Your task to perform on an android device: Open Youtube and go to "Your channel" Image 0: 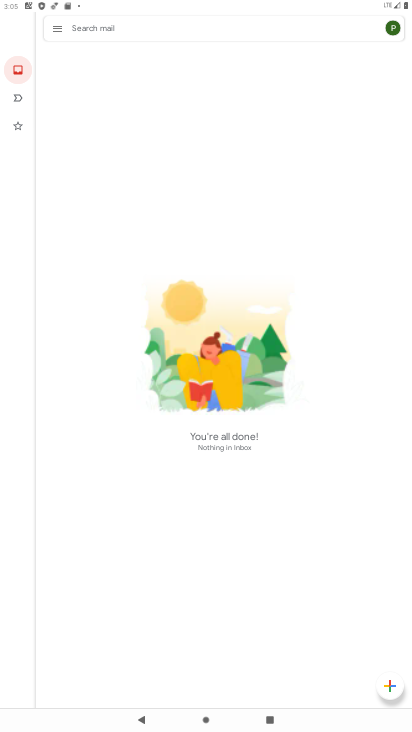
Step 0: press home button
Your task to perform on an android device: Open Youtube and go to "Your channel" Image 1: 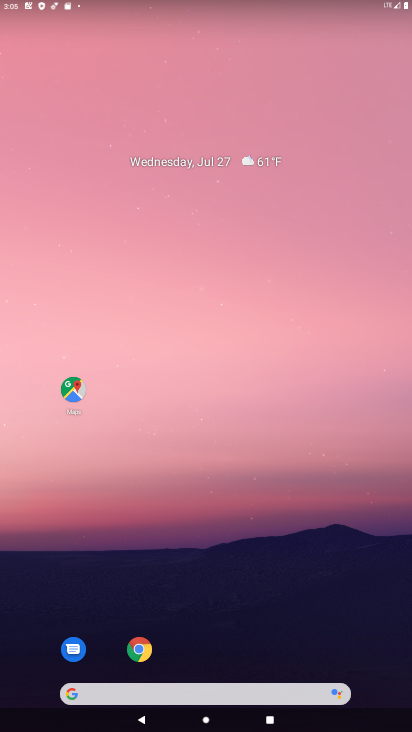
Step 1: drag from (180, 629) to (139, 78)
Your task to perform on an android device: Open Youtube and go to "Your channel" Image 2: 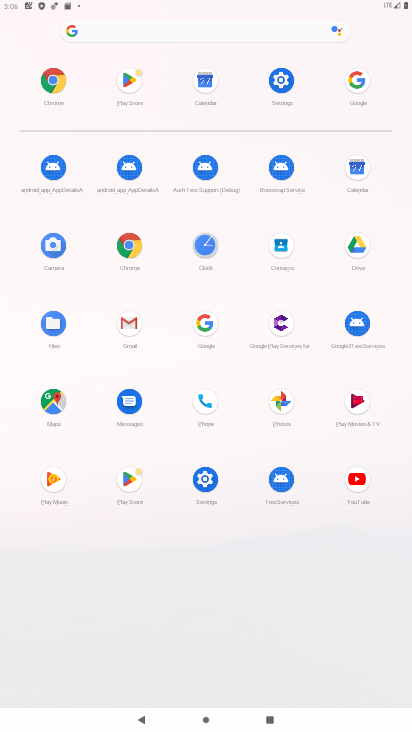
Step 2: click (357, 486)
Your task to perform on an android device: Open Youtube and go to "Your channel" Image 3: 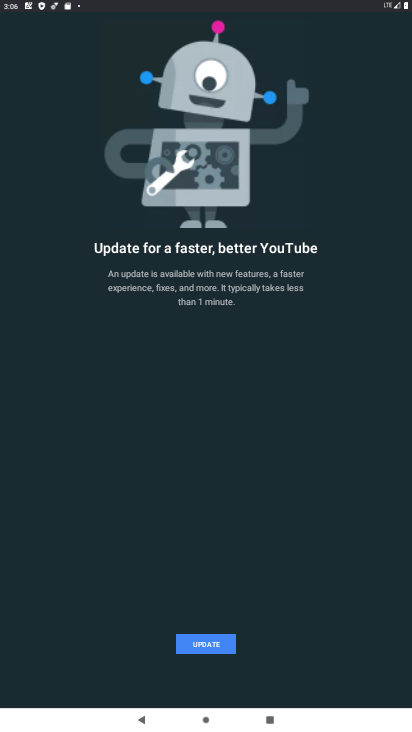
Step 3: click (201, 637)
Your task to perform on an android device: Open Youtube and go to "Your channel" Image 4: 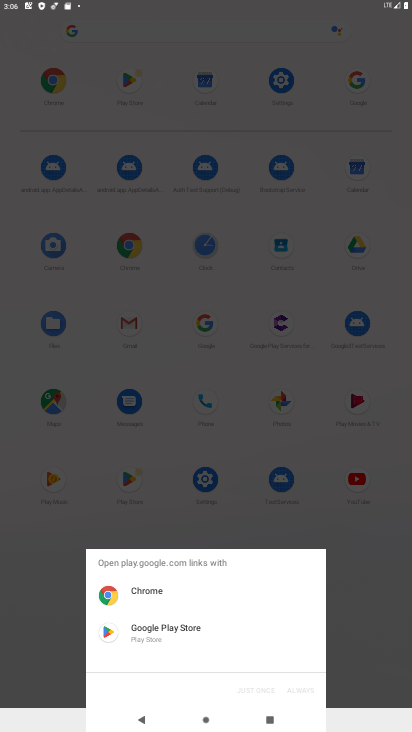
Step 4: click (188, 621)
Your task to perform on an android device: Open Youtube and go to "Your channel" Image 5: 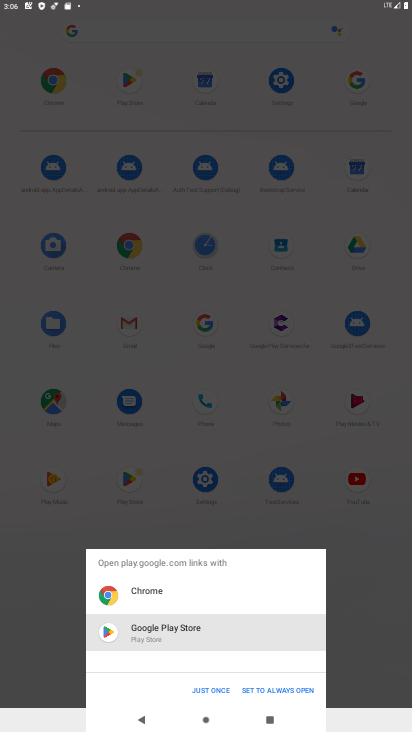
Step 5: click (273, 688)
Your task to perform on an android device: Open Youtube and go to "Your channel" Image 6: 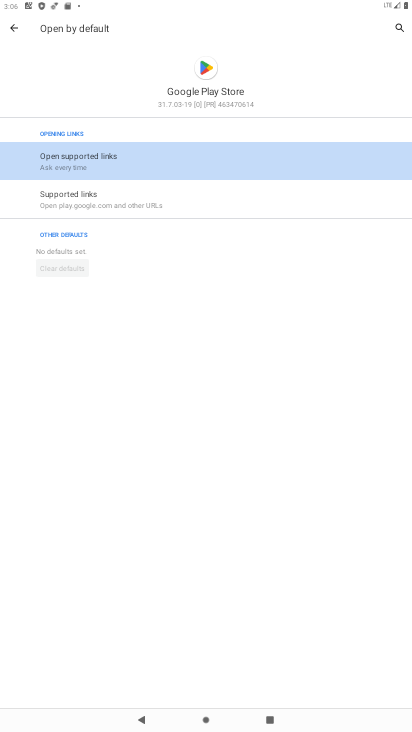
Step 6: click (99, 162)
Your task to perform on an android device: Open Youtube and go to "Your channel" Image 7: 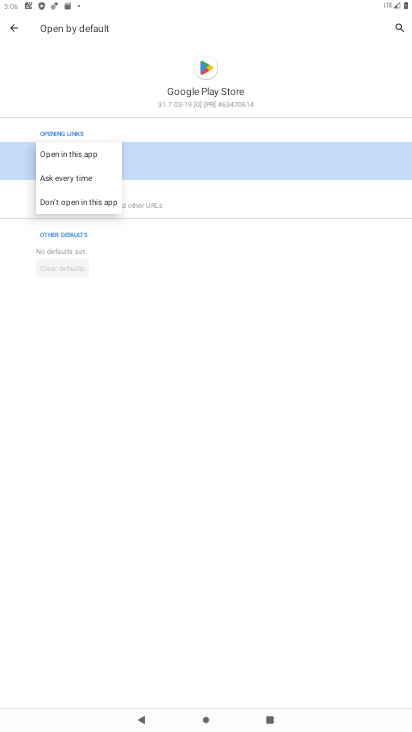
Step 7: click (81, 153)
Your task to perform on an android device: Open Youtube and go to "Your channel" Image 8: 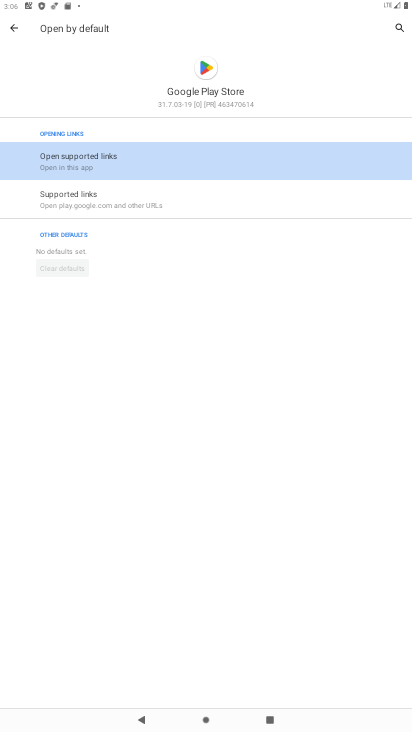
Step 8: click (11, 25)
Your task to perform on an android device: Open Youtube and go to "Your channel" Image 9: 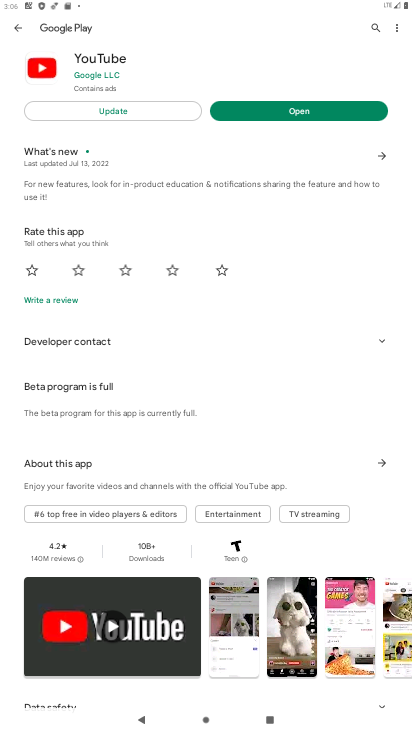
Step 9: click (105, 104)
Your task to perform on an android device: Open Youtube and go to "Your channel" Image 10: 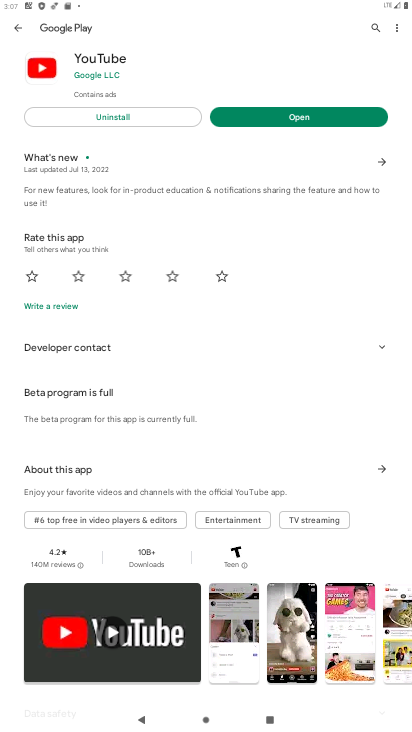
Step 10: click (282, 114)
Your task to perform on an android device: Open Youtube and go to "Your channel" Image 11: 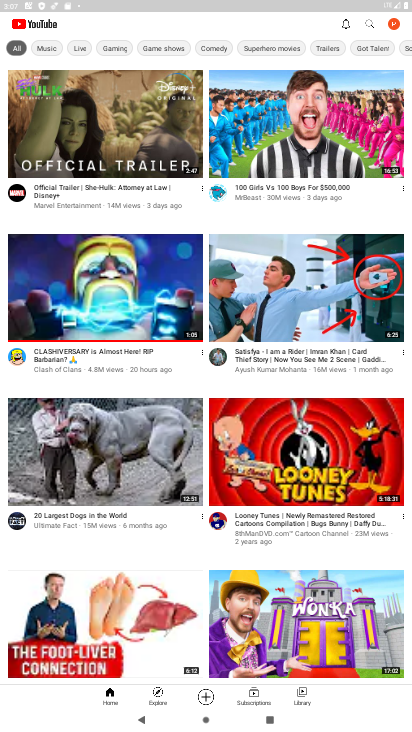
Step 11: click (391, 24)
Your task to perform on an android device: Open Youtube and go to "Your channel" Image 12: 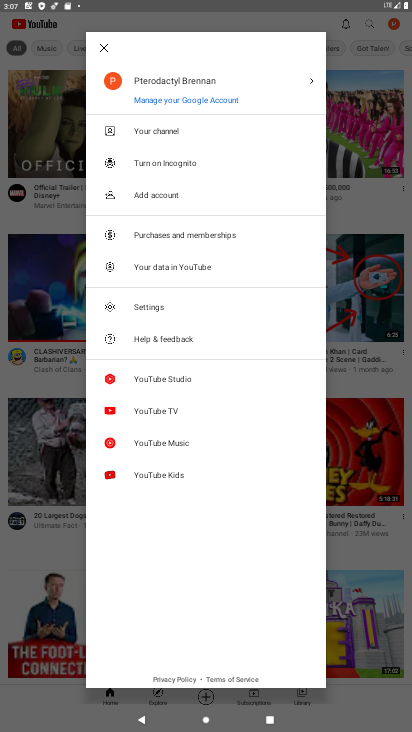
Step 12: click (157, 135)
Your task to perform on an android device: Open Youtube and go to "Your channel" Image 13: 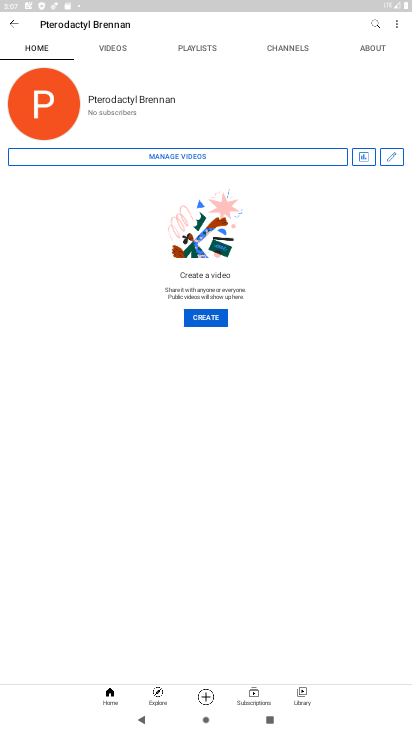
Step 13: task complete